Your task to perform on an android device: turn off location history Image 0: 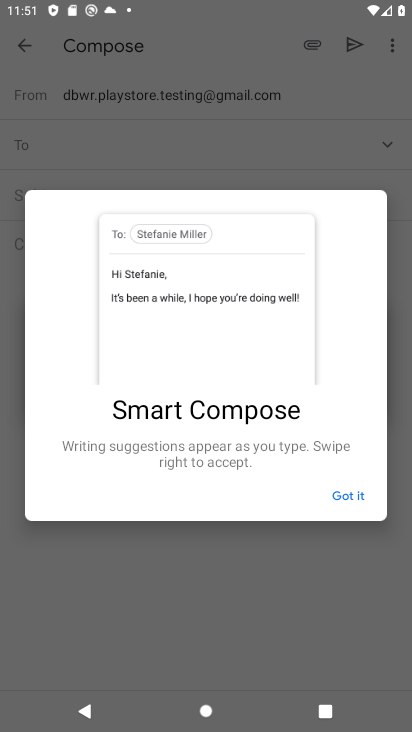
Step 0: press home button
Your task to perform on an android device: turn off location history Image 1: 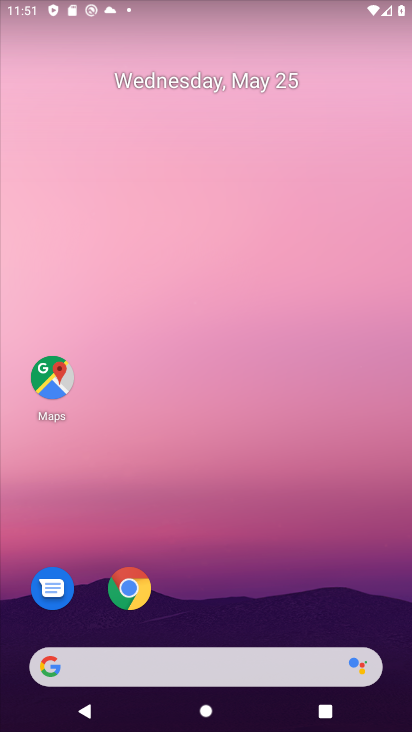
Step 1: drag from (186, 589) to (216, 209)
Your task to perform on an android device: turn off location history Image 2: 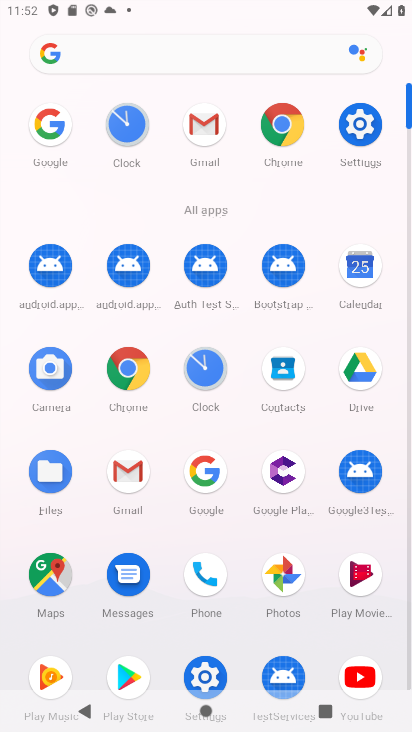
Step 2: click (358, 123)
Your task to perform on an android device: turn off location history Image 3: 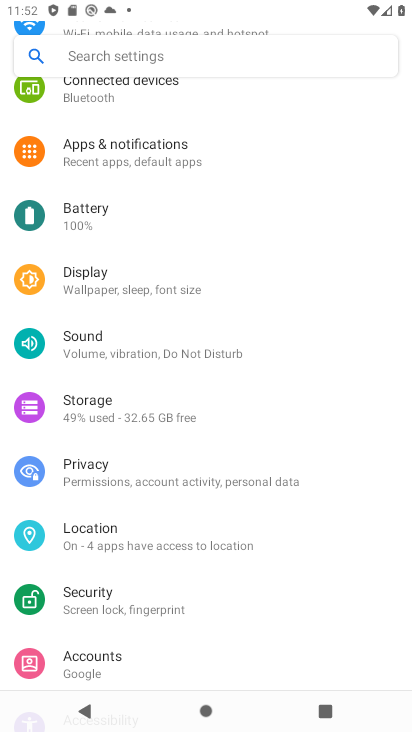
Step 3: click (143, 541)
Your task to perform on an android device: turn off location history Image 4: 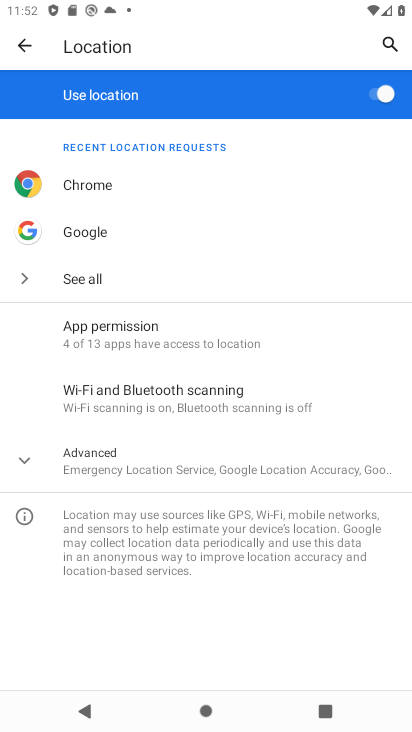
Step 4: click (29, 452)
Your task to perform on an android device: turn off location history Image 5: 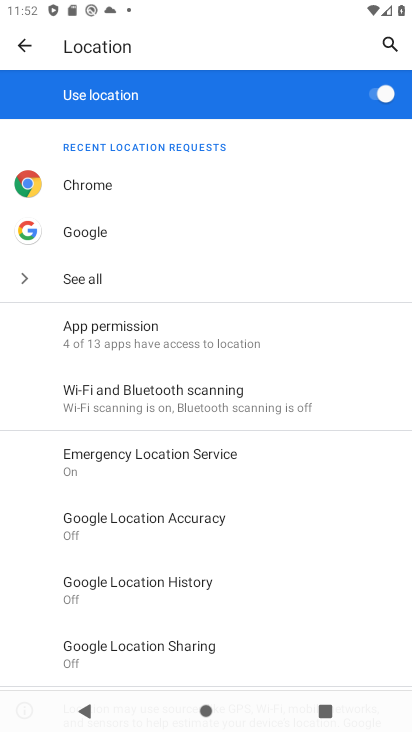
Step 5: task complete